Your task to perform on an android device: Open Google Chrome Image 0: 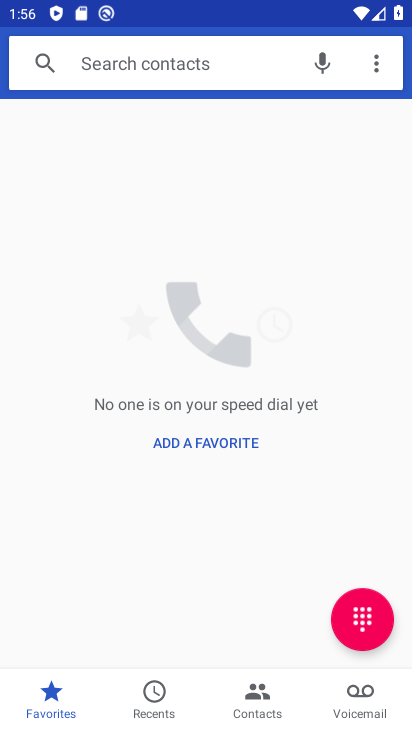
Step 0: press back button
Your task to perform on an android device: Open Google Chrome Image 1: 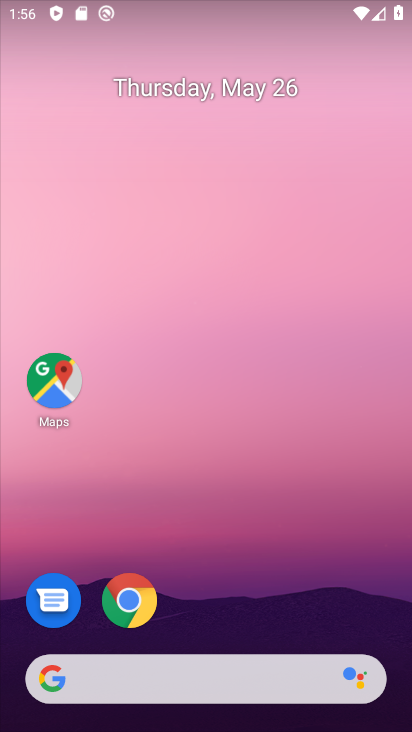
Step 1: drag from (255, 572) to (175, 63)
Your task to perform on an android device: Open Google Chrome Image 2: 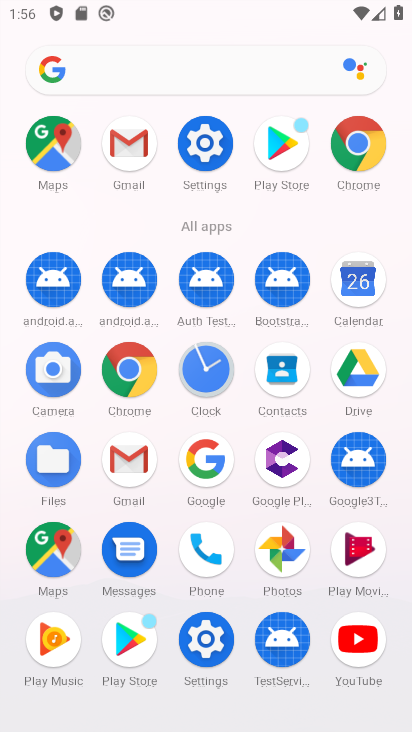
Step 2: click (128, 363)
Your task to perform on an android device: Open Google Chrome Image 3: 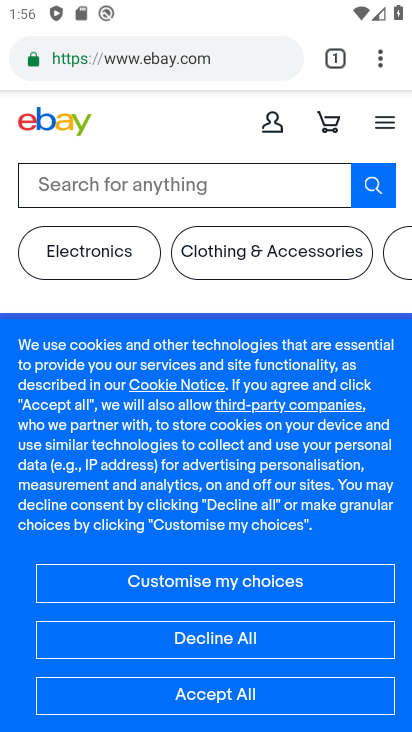
Step 3: click (176, 61)
Your task to perform on an android device: Open Google Chrome Image 4: 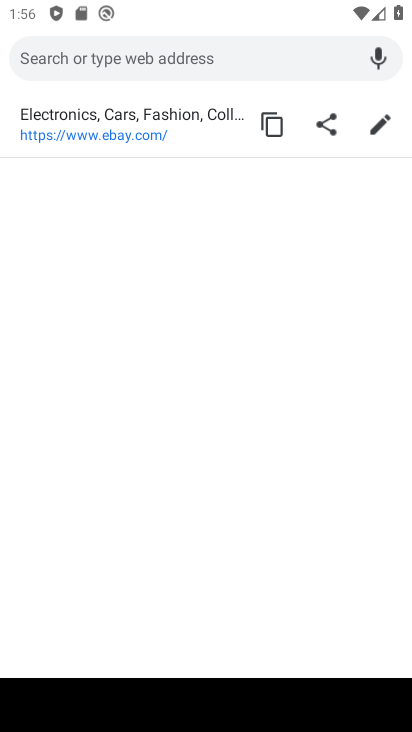
Step 4: task complete